Your task to perform on an android device: Open network settings Image 0: 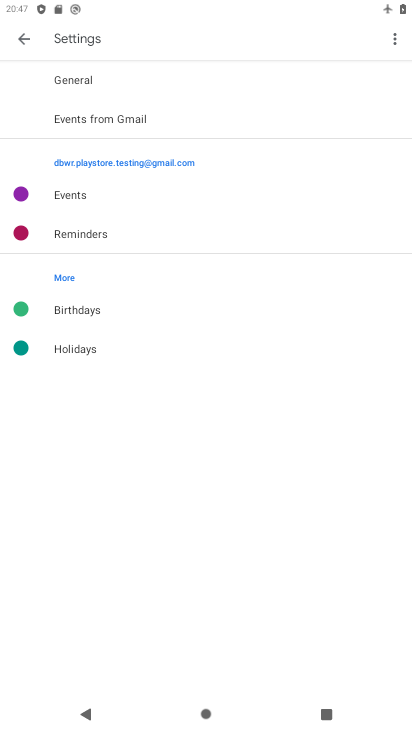
Step 0: press home button
Your task to perform on an android device: Open network settings Image 1: 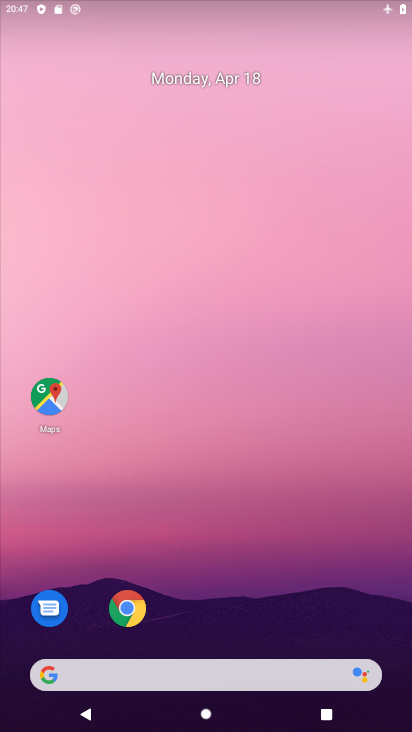
Step 1: drag from (238, 514) to (234, 86)
Your task to perform on an android device: Open network settings Image 2: 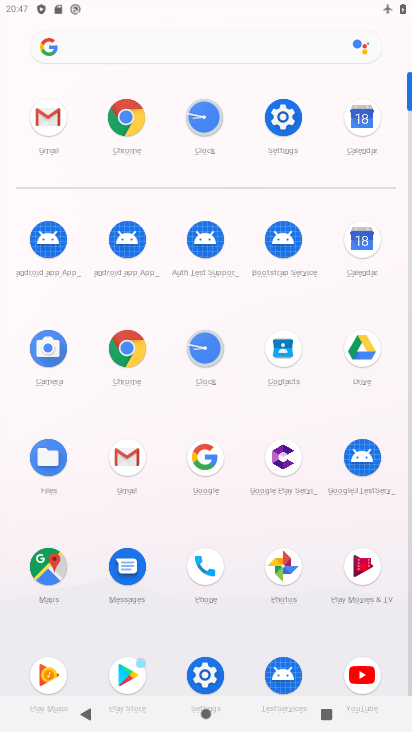
Step 2: click (282, 119)
Your task to perform on an android device: Open network settings Image 3: 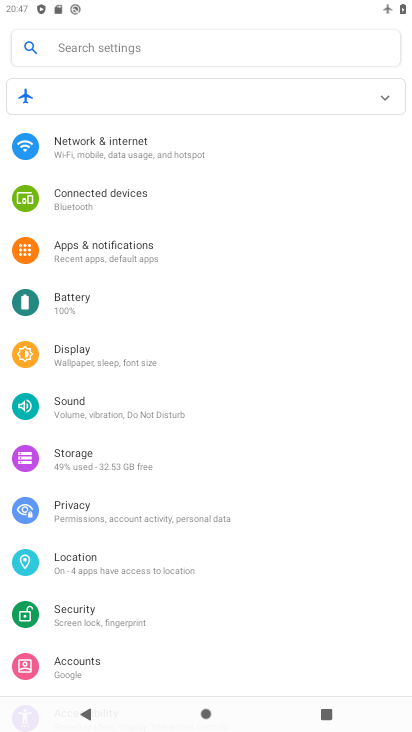
Step 3: click (118, 154)
Your task to perform on an android device: Open network settings Image 4: 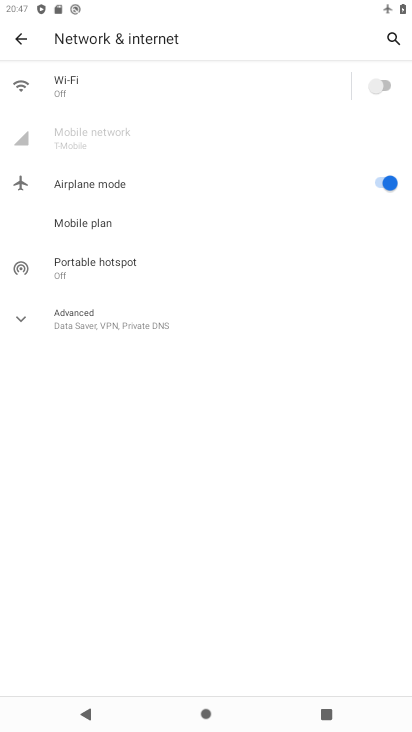
Step 4: click (120, 89)
Your task to perform on an android device: Open network settings Image 5: 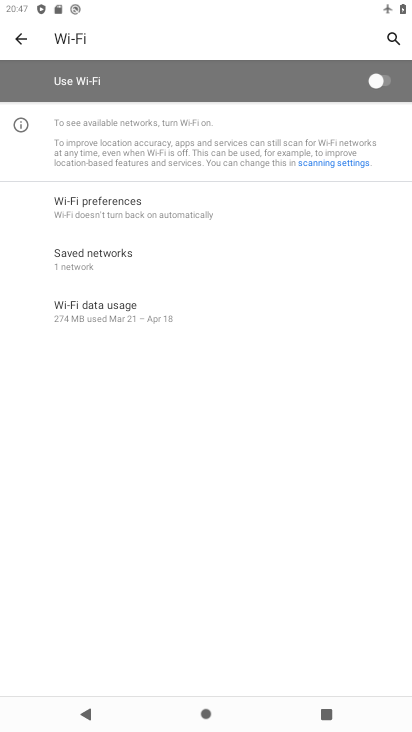
Step 5: task complete